Your task to perform on an android device: set the timer Image 0: 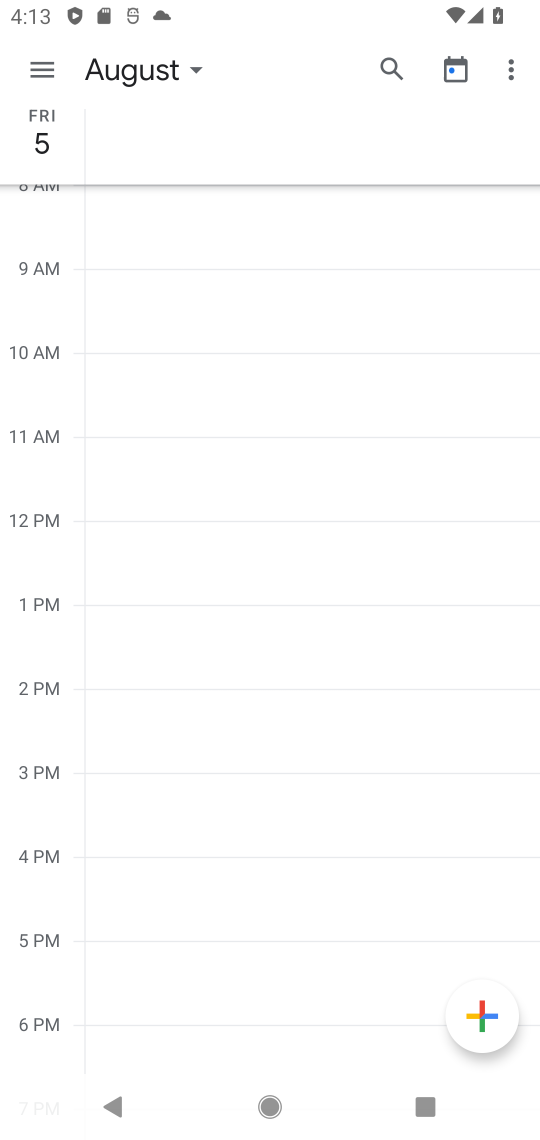
Step 0: press home button
Your task to perform on an android device: set the timer Image 1: 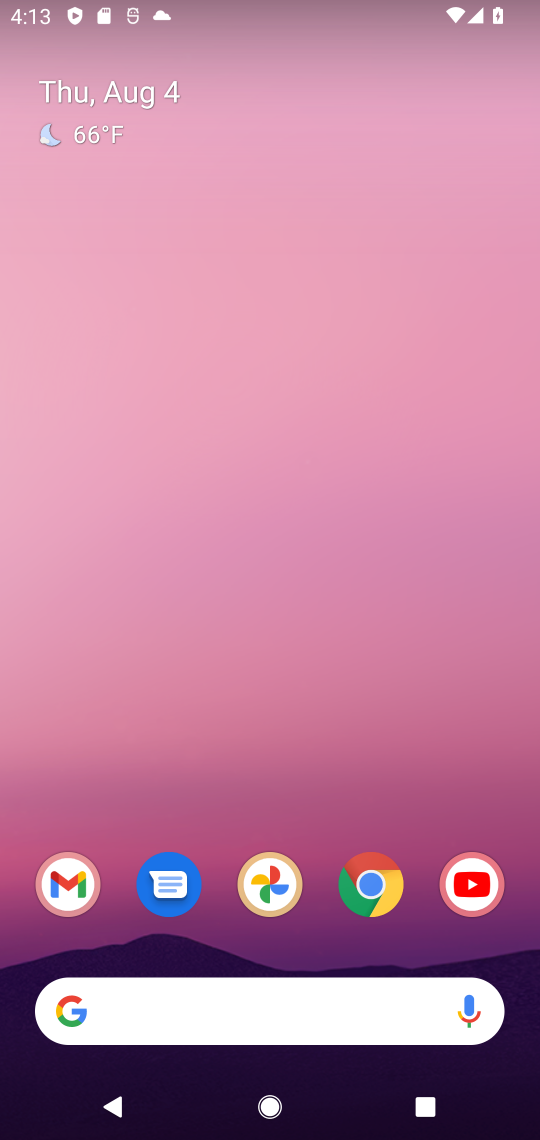
Step 1: drag from (321, 962) to (355, 147)
Your task to perform on an android device: set the timer Image 2: 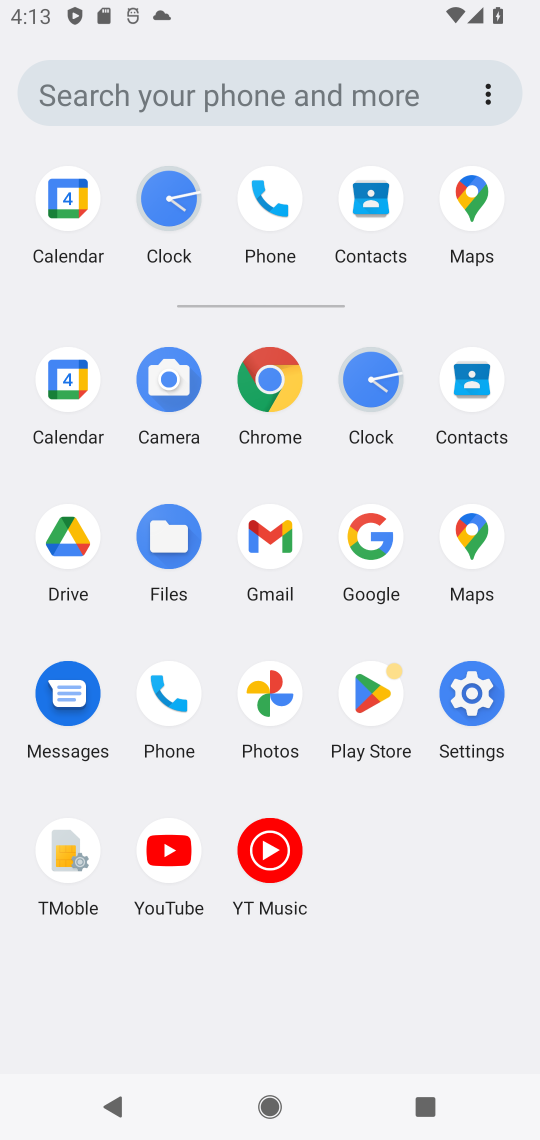
Step 2: click (356, 370)
Your task to perform on an android device: set the timer Image 3: 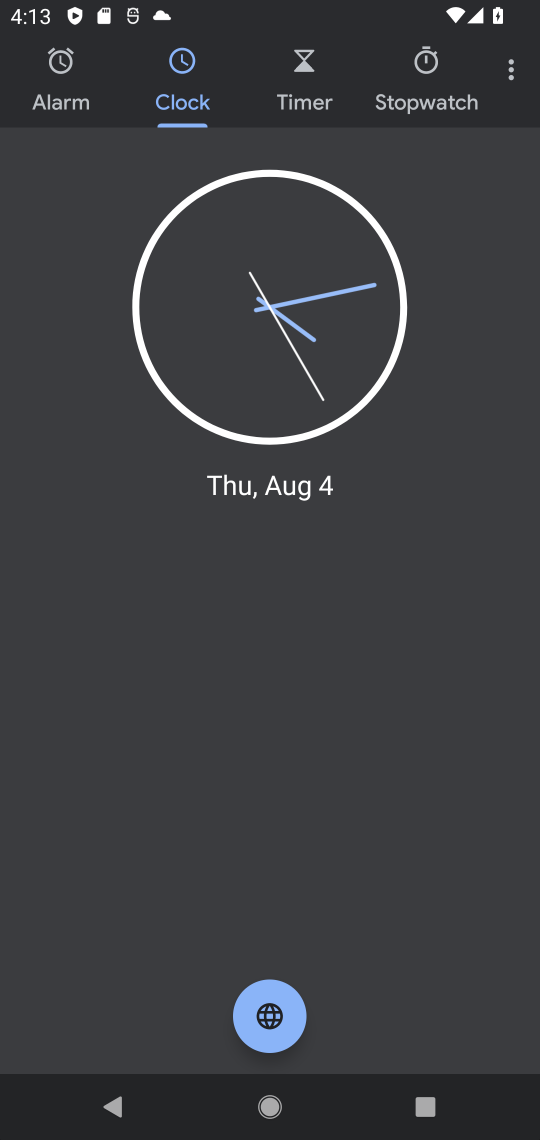
Step 3: click (303, 91)
Your task to perform on an android device: set the timer Image 4: 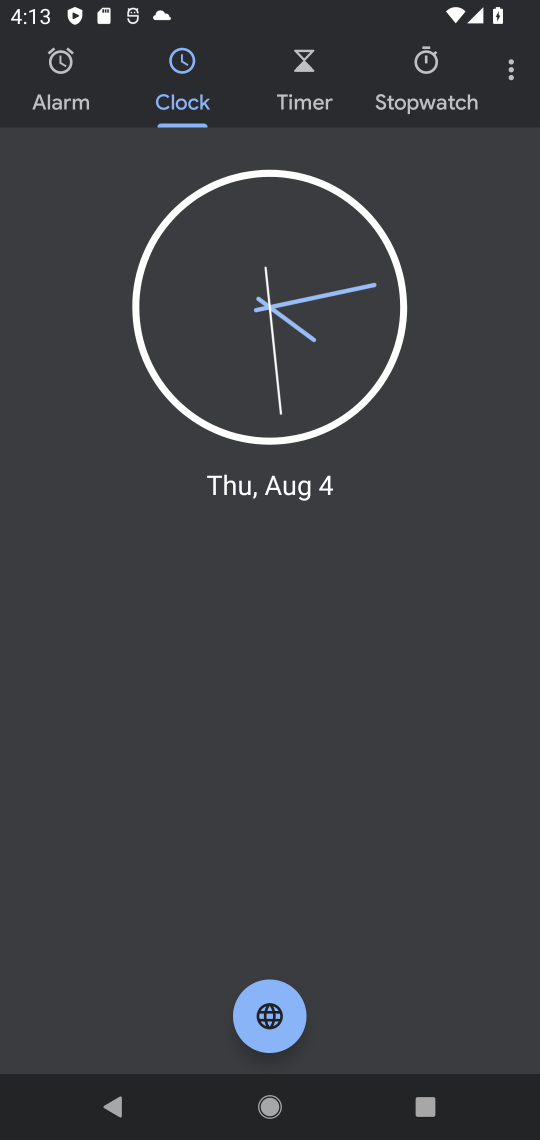
Step 4: click (312, 96)
Your task to perform on an android device: set the timer Image 5: 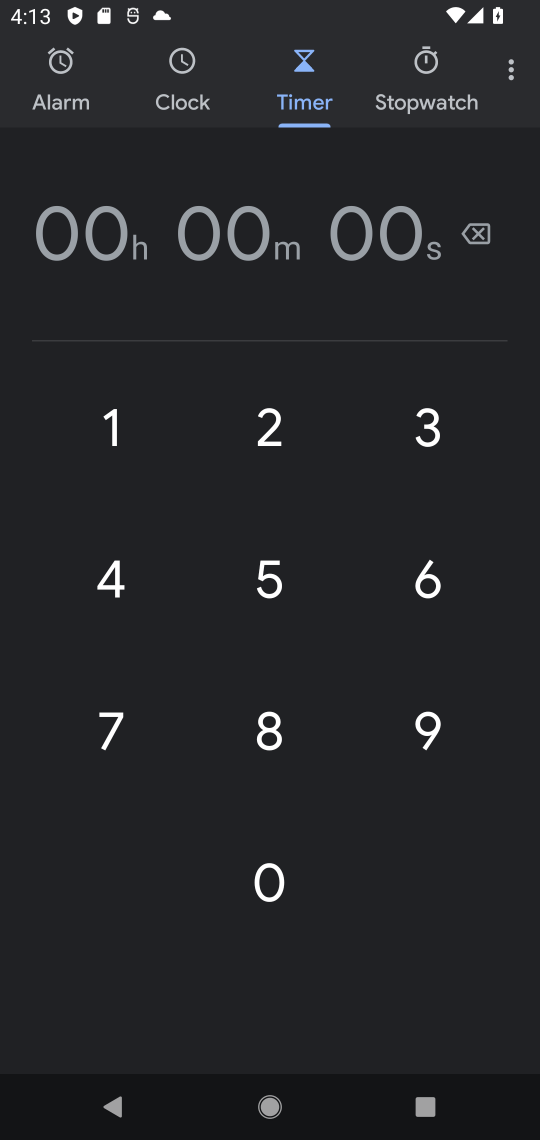
Step 5: click (232, 239)
Your task to perform on an android device: set the timer Image 6: 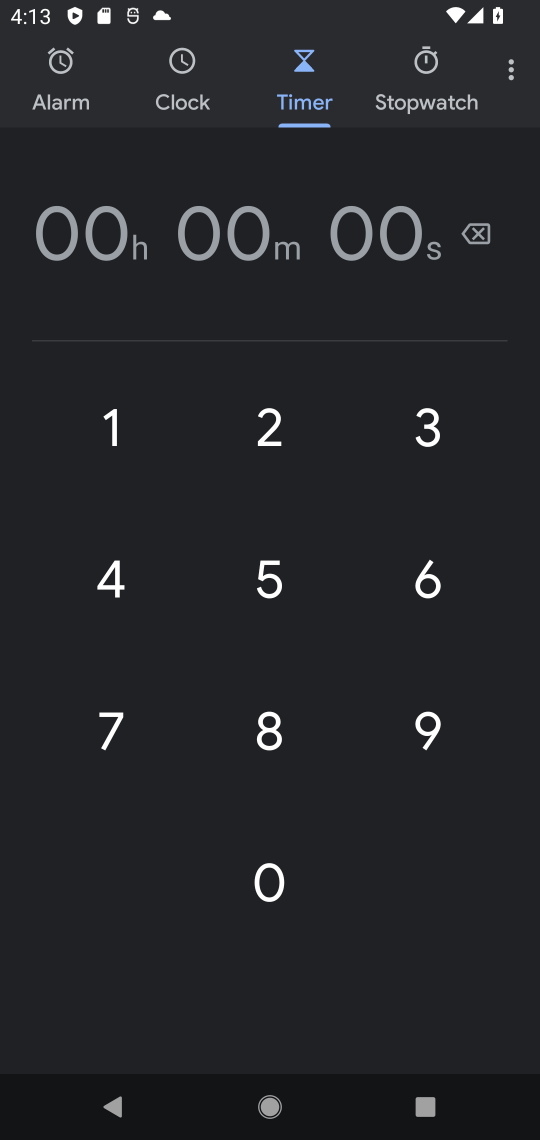
Step 6: type "98989898989 "
Your task to perform on an android device: set the timer Image 7: 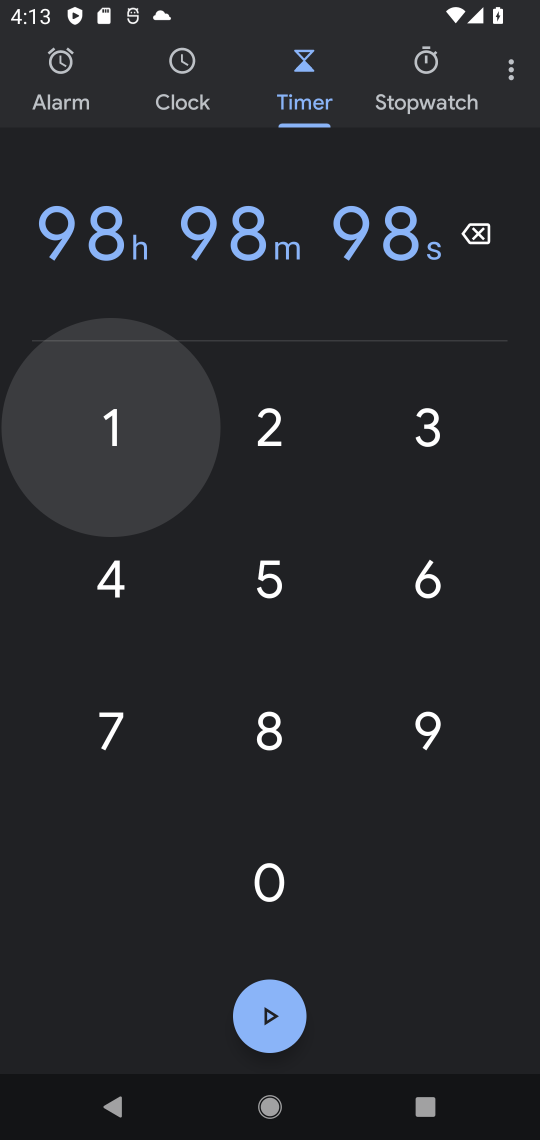
Step 7: click (257, 998)
Your task to perform on an android device: set the timer Image 8: 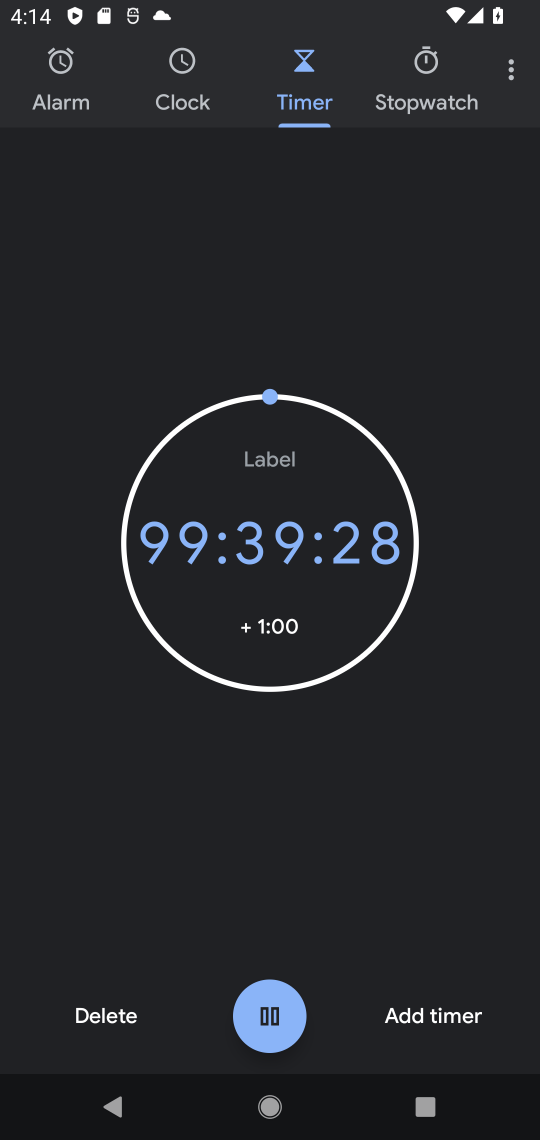
Step 8: task complete